Your task to perform on an android device: Search for a sofa on article.com Image 0: 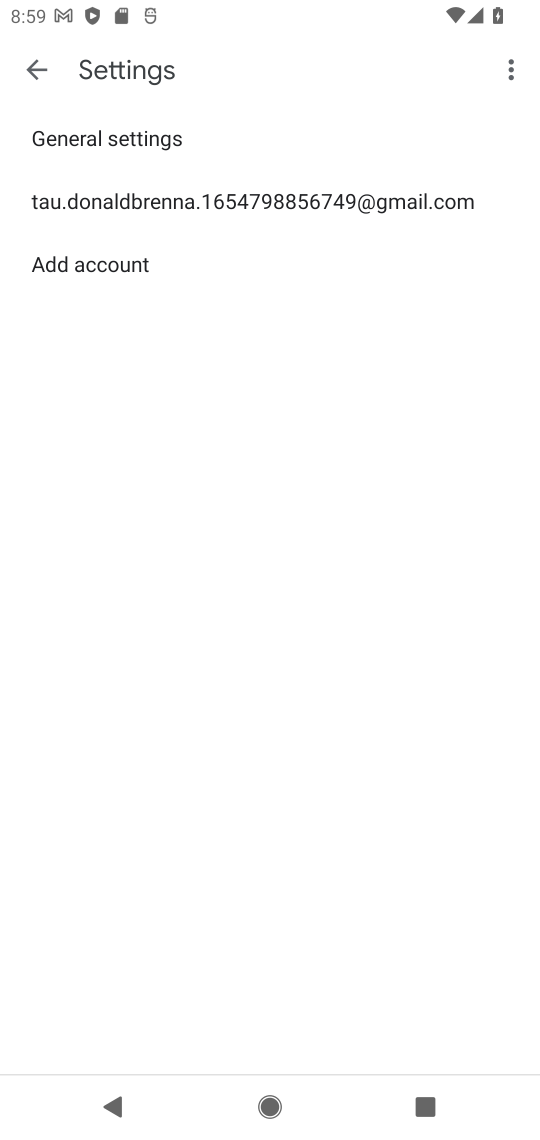
Step 0: press home button
Your task to perform on an android device: Search for a sofa on article.com Image 1: 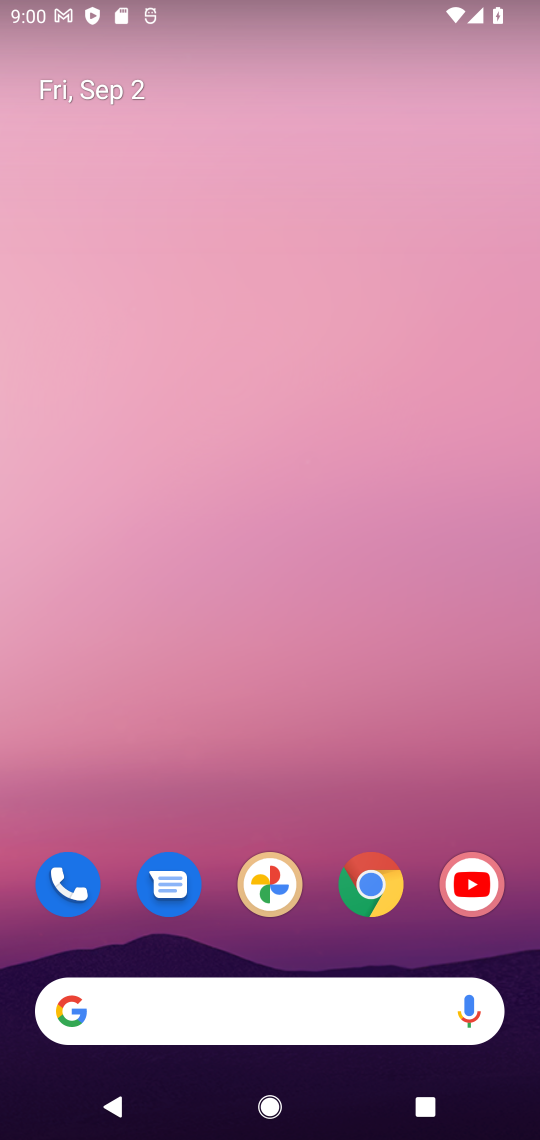
Step 1: click (371, 883)
Your task to perform on an android device: Search for a sofa on article.com Image 2: 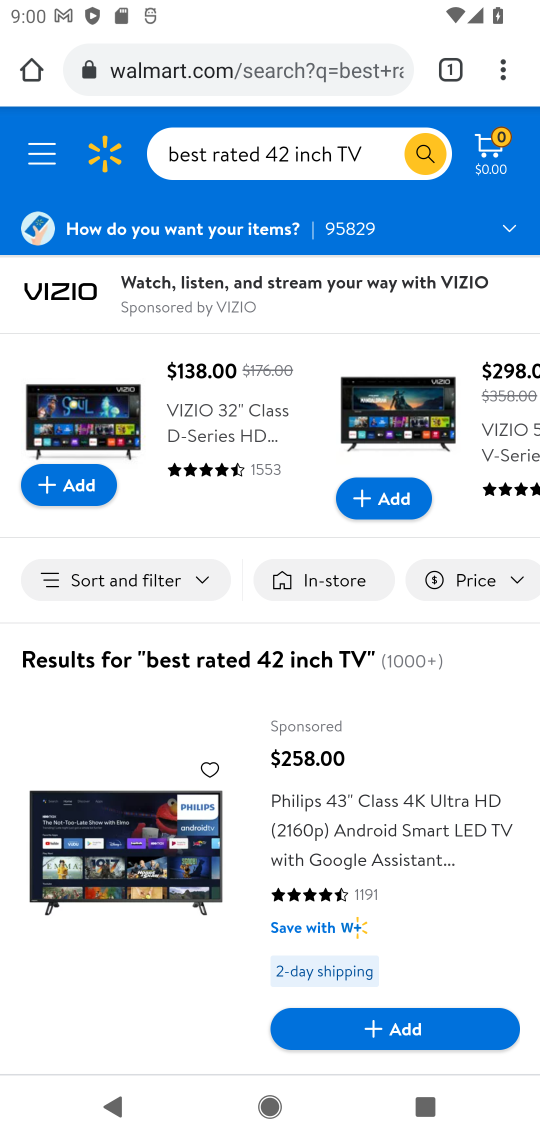
Step 2: click (281, 78)
Your task to perform on an android device: Search for a sofa on article.com Image 3: 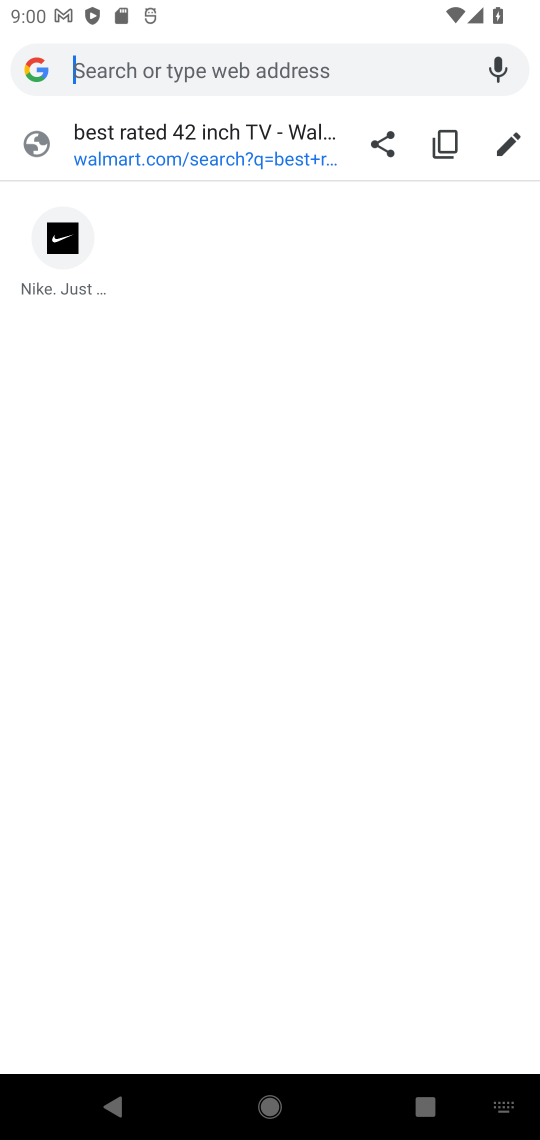
Step 3: type "article.com"
Your task to perform on an android device: Search for a sofa on article.com Image 4: 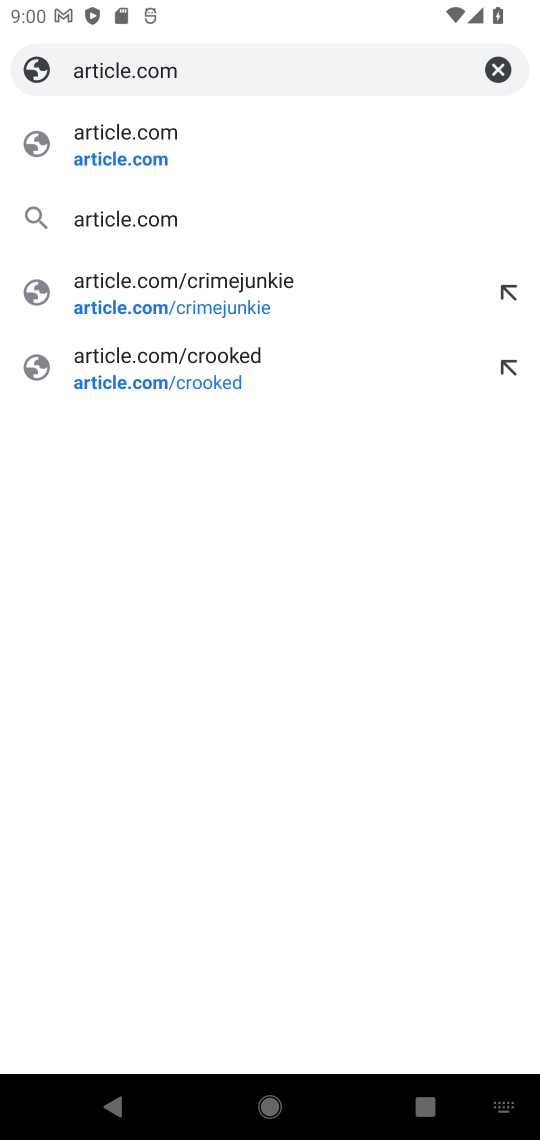
Step 4: click (124, 165)
Your task to perform on an android device: Search for a sofa on article.com Image 5: 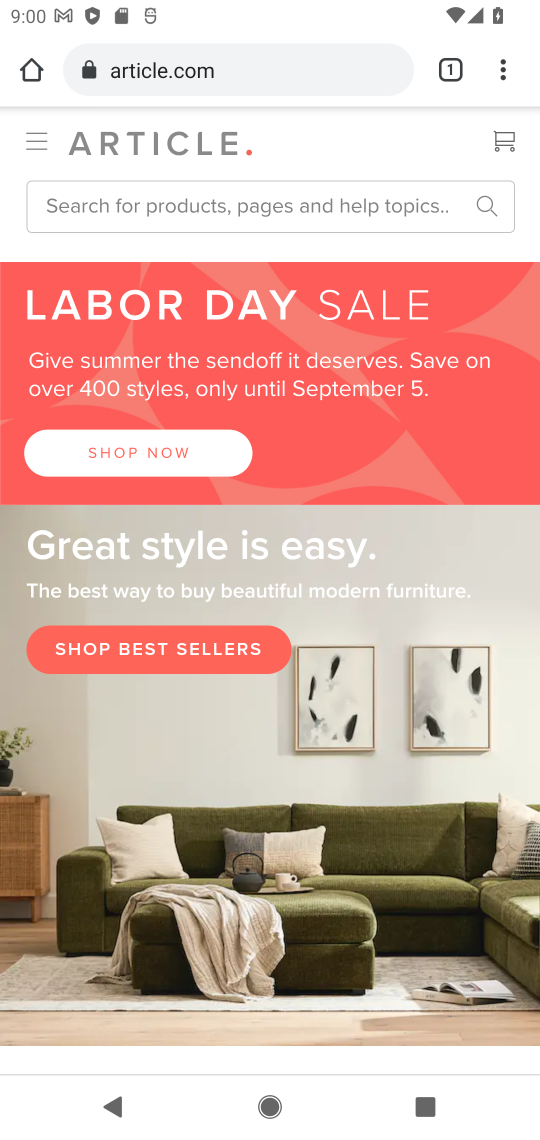
Step 5: click (196, 208)
Your task to perform on an android device: Search for a sofa on article.com Image 6: 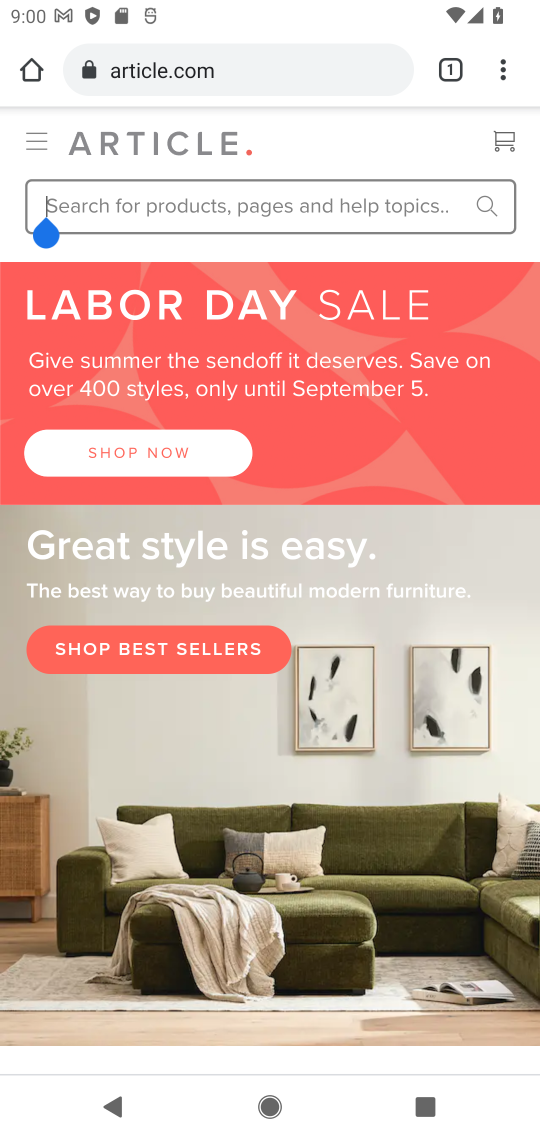
Step 6: type "sofa"
Your task to perform on an android device: Search for a sofa on article.com Image 7: 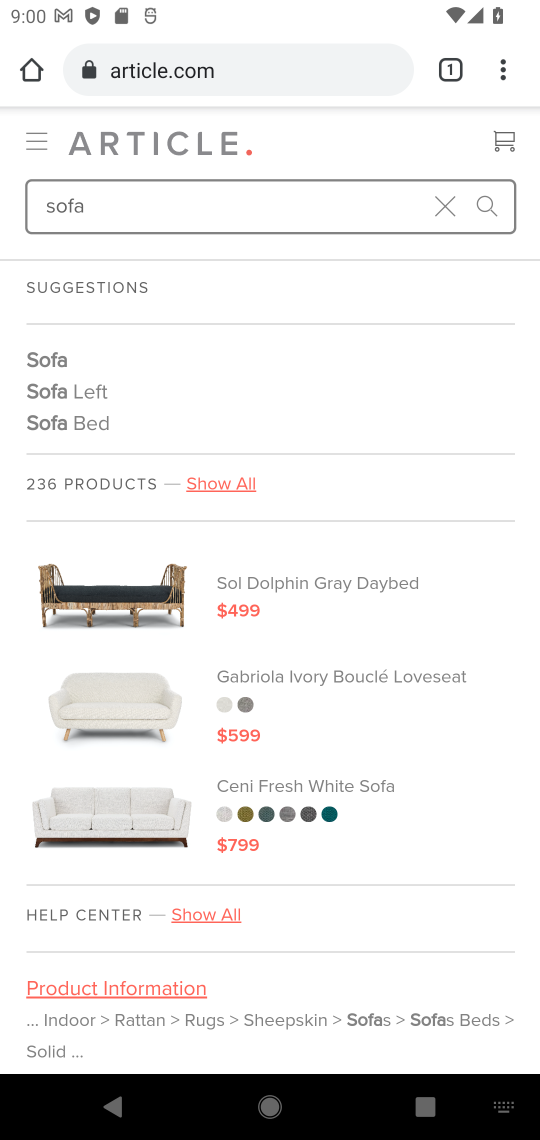
Step 7: click (50, 357)
Your task to perform on an android device: Search for a sofa on article.com Image 8: 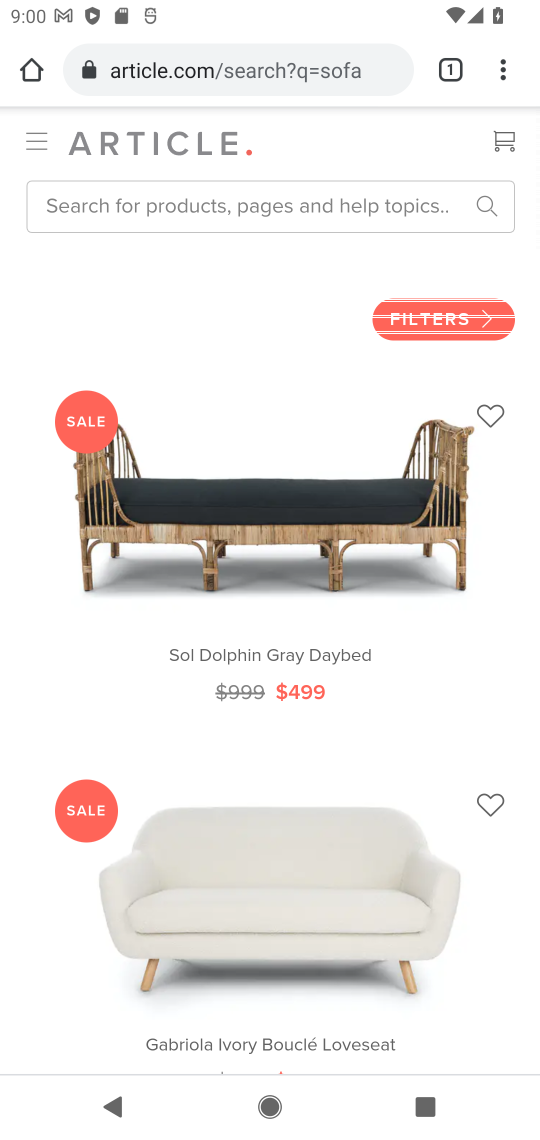
Step 8: task complete